Your task to perform on an android device: turn off javascript in the chrome app Image 0: 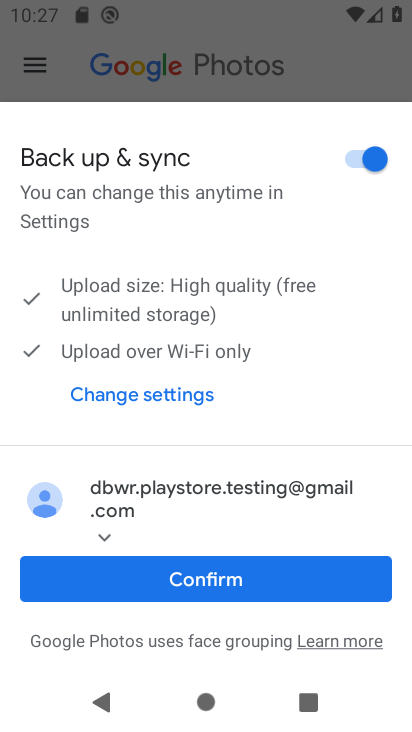
Step 0: press home button
Your task to perform on an android device: turn off javascript in the chrome app Image 1: 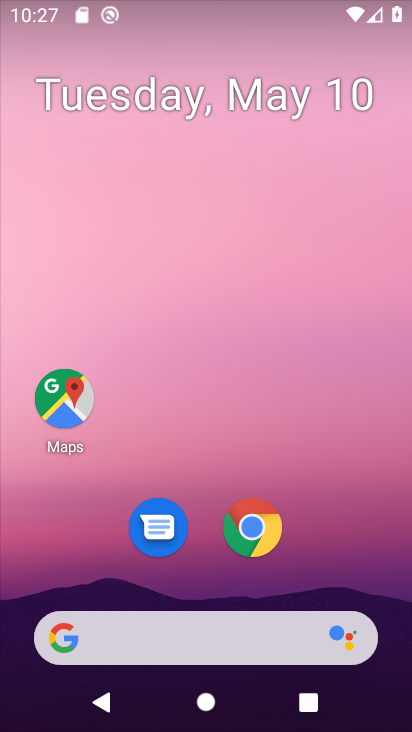
Step 1: click (263, 530)
Your task to perform on an android device: turn off javascript in the chrome app Image 2: 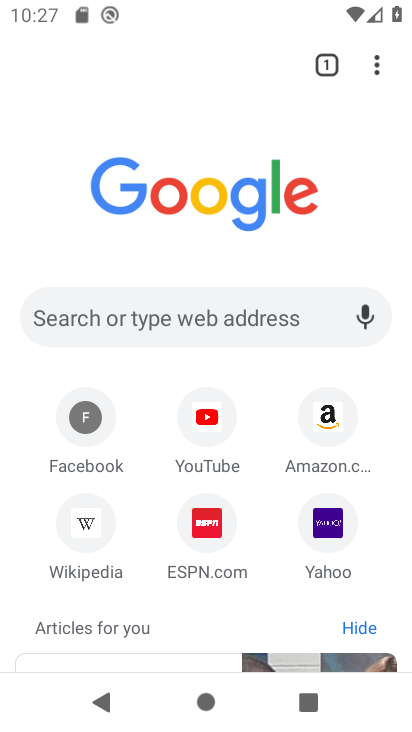
Step 2: click (374, 54)
Your task to perform on an android device: turn off javascript in the chrome app Image 3: 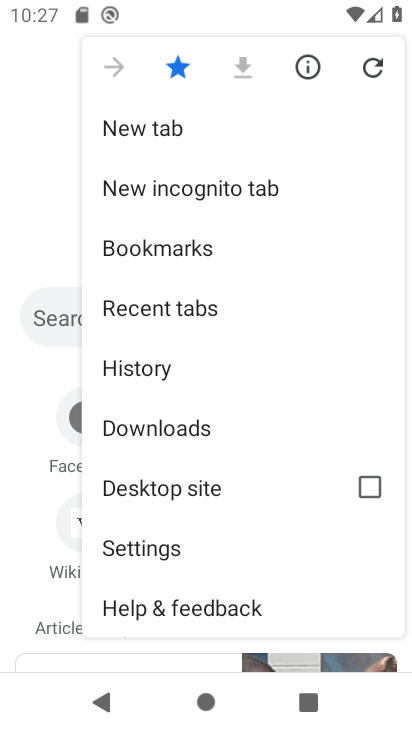
Step 3: click (191, 547)
Your task to perform on an android device: turn off javascript in the chrome app Image 4: 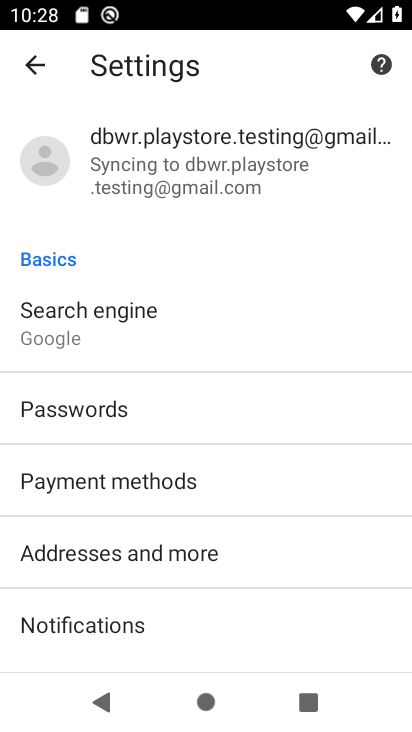
Step 4: drag from (213, 634) to (185, 402)
Your task to perform on an android device: turn off javascript in the chrome app Image 5: 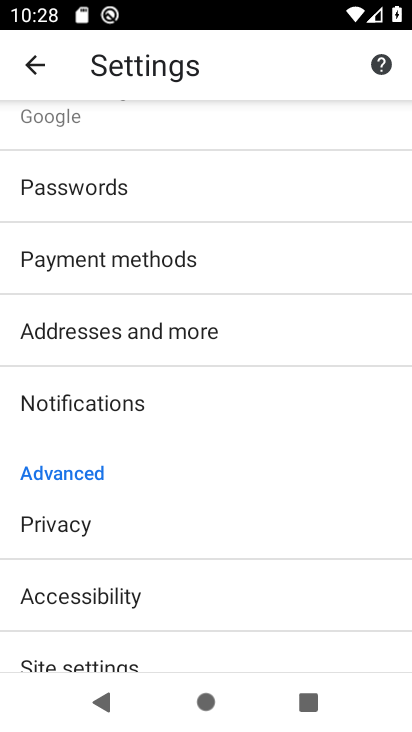
Step 5: drag from (222, 586) to (191, 309)
Your task to perform on an android device: turn off javascript in the chrome app Image 6: 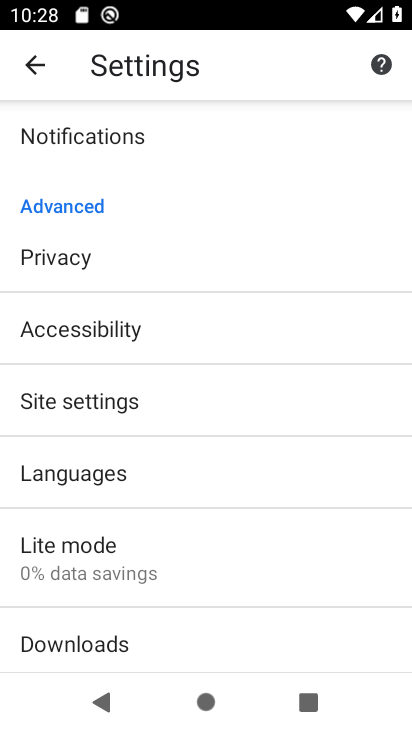
Step 6: drag from (191, 610) to (172, 336)
Your task to perform on an android device: turn off javascript in the chrome app Image 7: 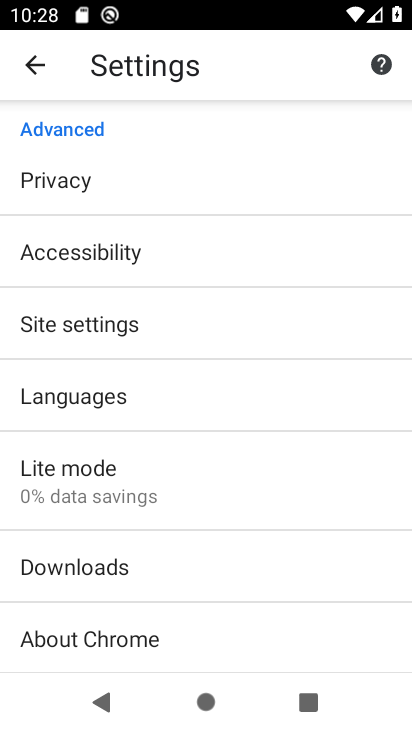
Step 7: drag from (146, 597) to (135, 310)
Your task to perform on an android device: turn off javascript in the chrome app Image 8: 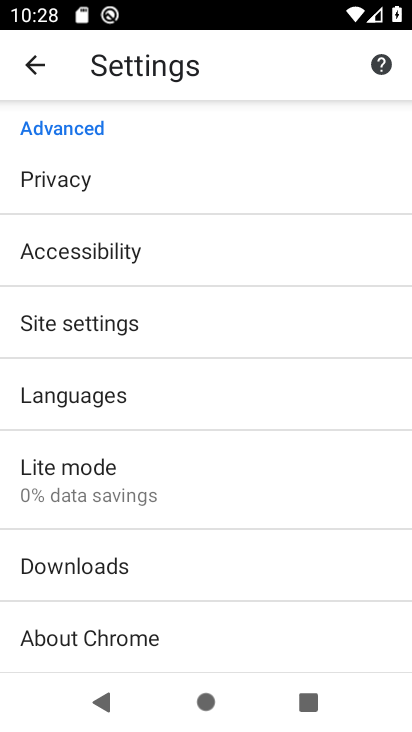
Step 8: click (135, 311)
Your task to perform on an android device: turn off javascript in the chrome app Image 9: 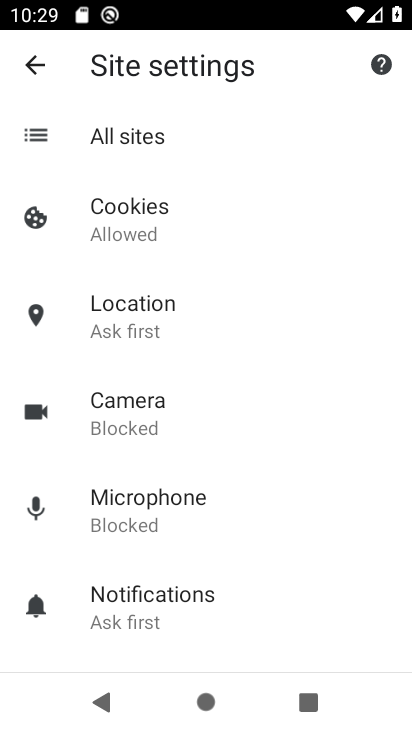
Step 9: drag from (271, 528) to (250, 322)
Your task to perform on an android device: turn off javascript in the chrome app Image 10: 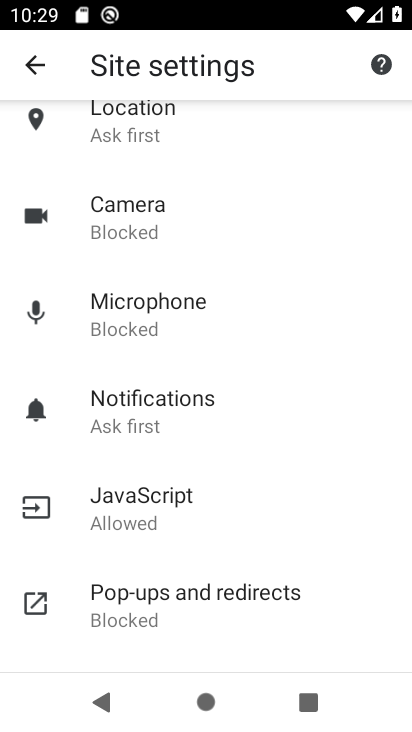
Step 10: click (133, 500)
Your task to perform on an android device: turn off javascript in the chrome app Image 11: 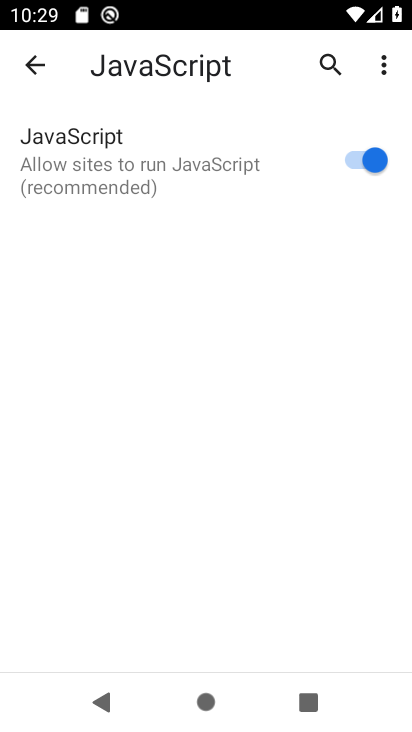
Step 11: click (362, 161)
Your task to perform on an android device: turn off javascript in the chrome app Image 12: 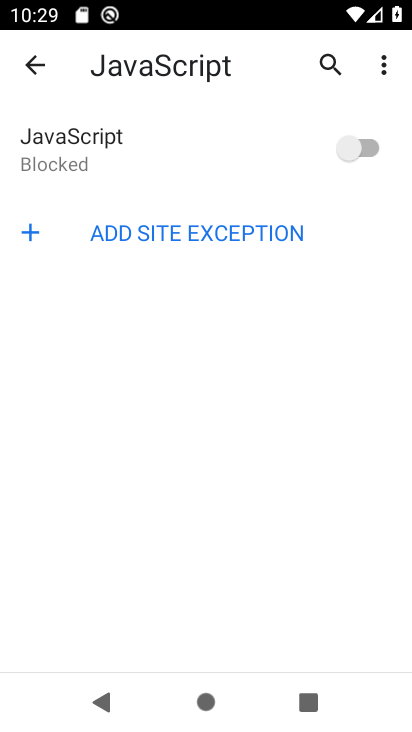
Step 12: task complete